Your task to perform on an android device: Open wifi settings Image 0: 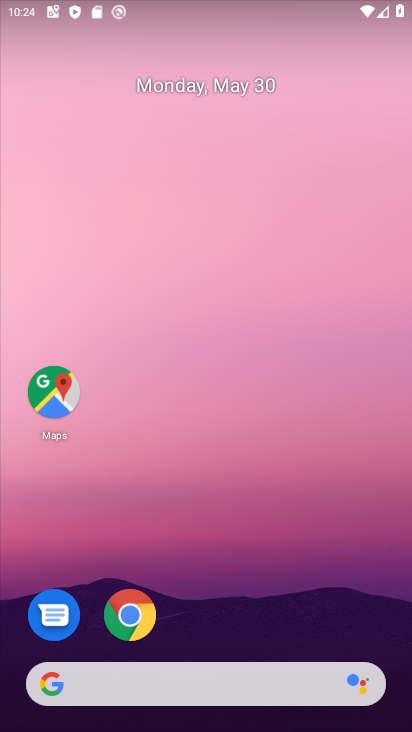
Step 0: drag from (297, 616) to (232, 24)
Your task to perform on an android device: Open wifi settings Image 1: 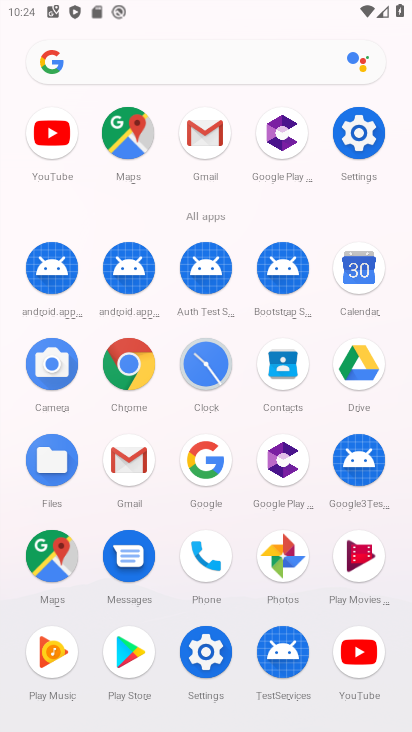
Step 1: click (205, 649)
Your task to perform on an android device: Open wifi settings Image 2: 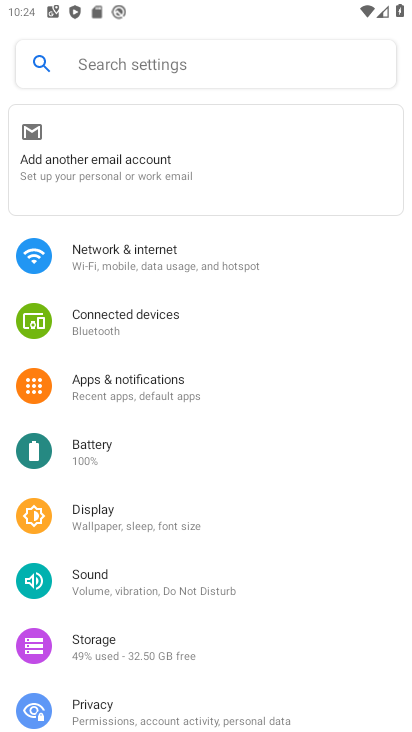
Step 2: click (172, 240)
Your task to perform on an android device: Open wifi settings Image 3: 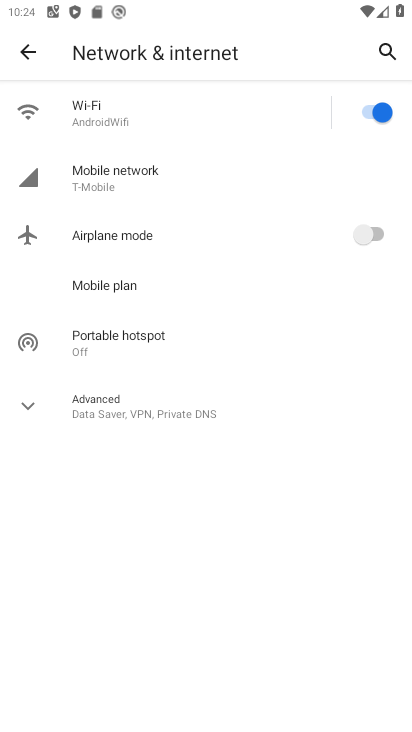
Step 3: click (129, 113)
Your task to perform on an android device: Open wifi settings Image 4: 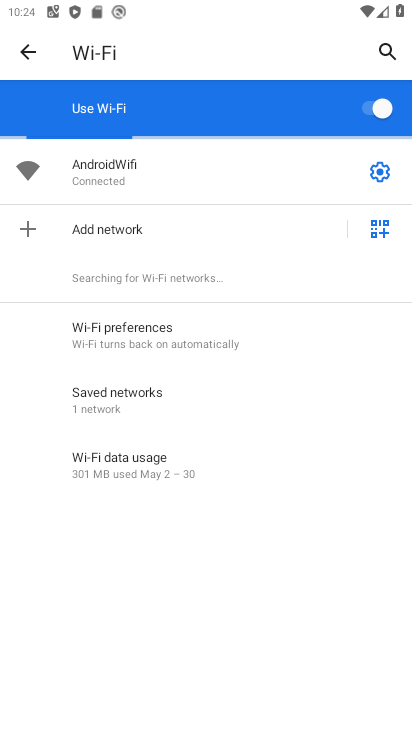
Step 4: task complete